Your task to perform on an android device: toggle show notifications on the lock screen Image 0: 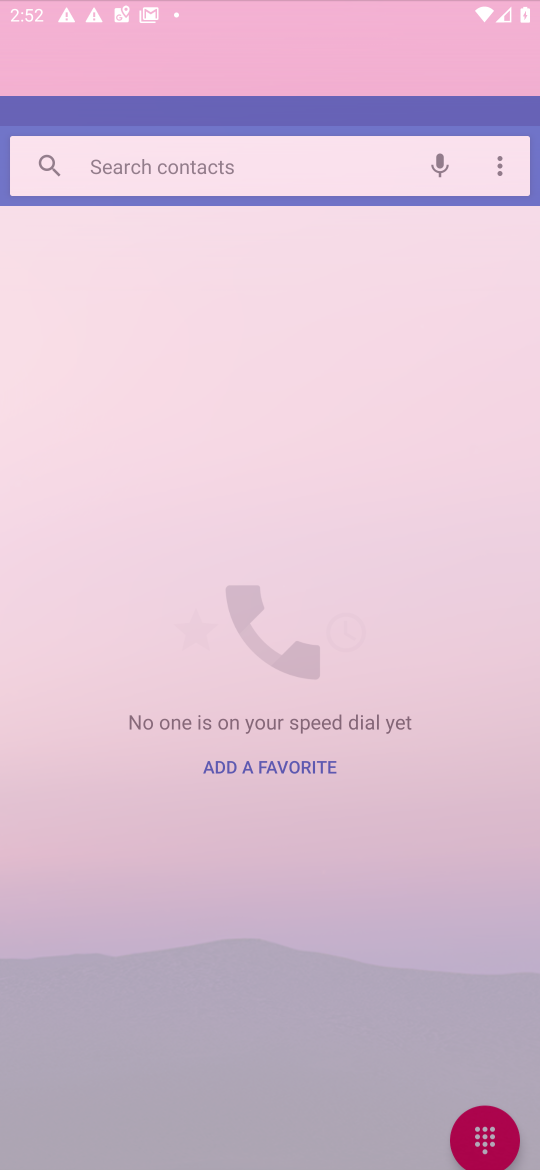
Step 0: press back button
Your task to perform on an android device: toggle show notifications on the lock screen Image 1: 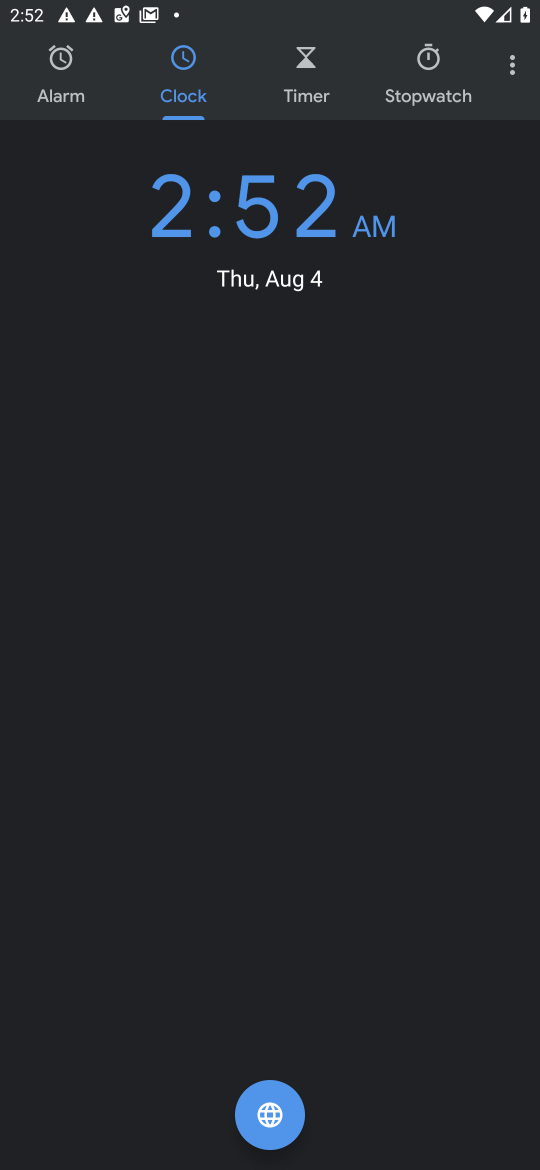
Step 1: press home button
Your task to perform on an android device: toggle show notifications on the lock screen Image 2: 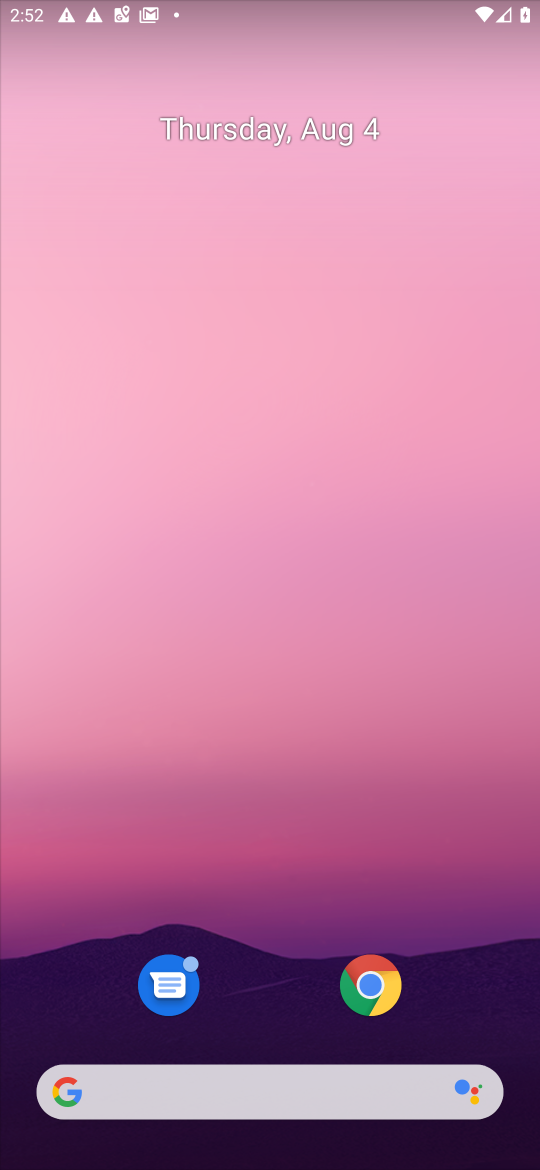
Step 2: drag from (313, 1088) to (180, 381)
Your task to perform on an android device: toggle show notifications on the lock screen Image 3: 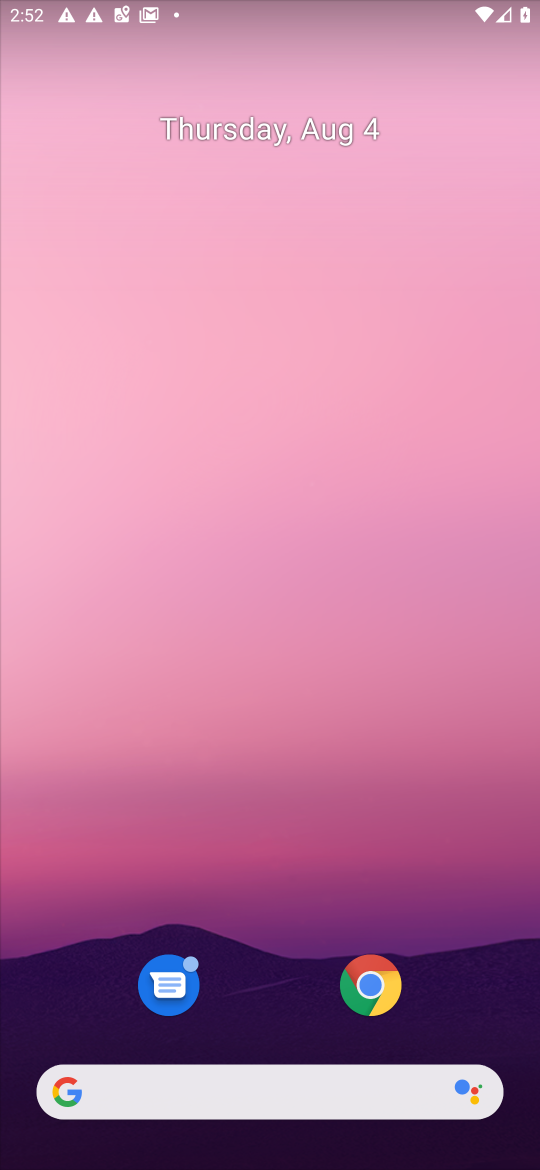
Step 3: drag from (254, 1049) to (208, 735)
Your task to perform on an android device: toggle show notifications on the lock screen Image 4: 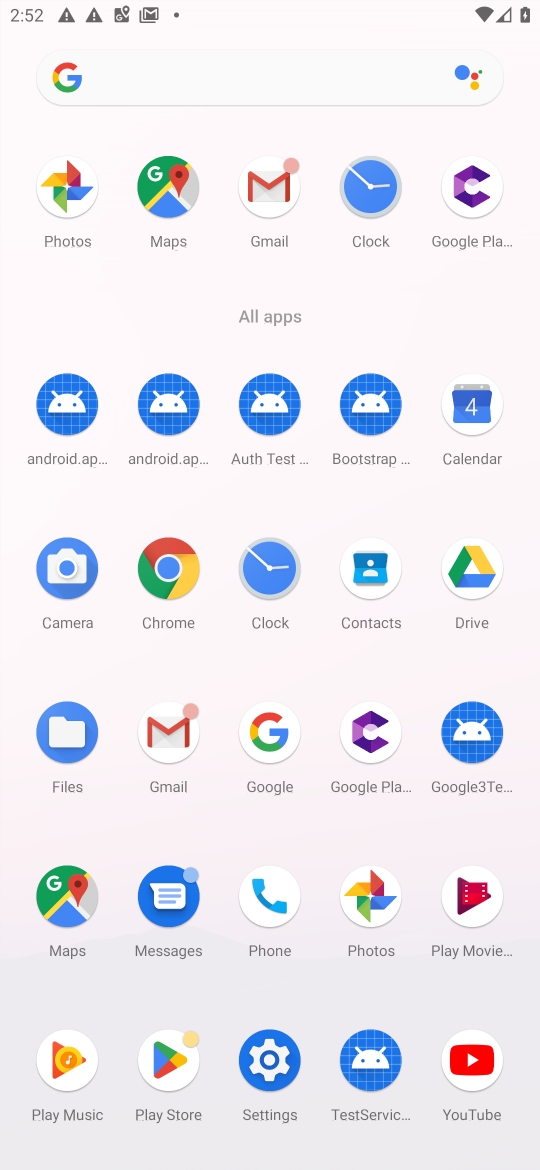
Step 4: click (268, 1069)
Your task to perform on an android device: toggle show notifications on the lock screen Image 5: 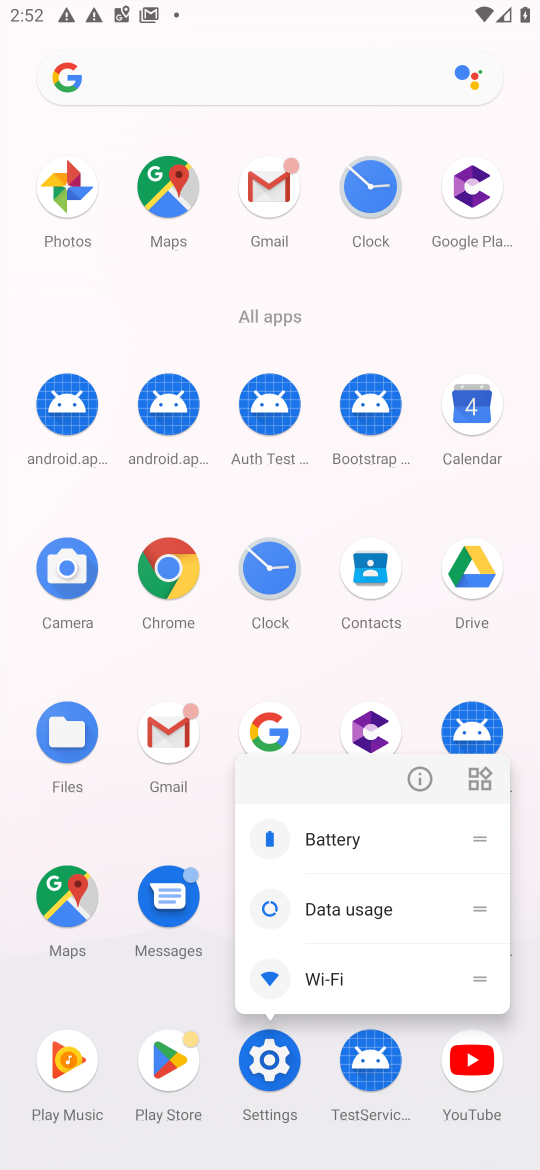
Step 5: click (265, 1065)
Your task to perform on an android device: toggle show notifications on the lock screen Image 6: 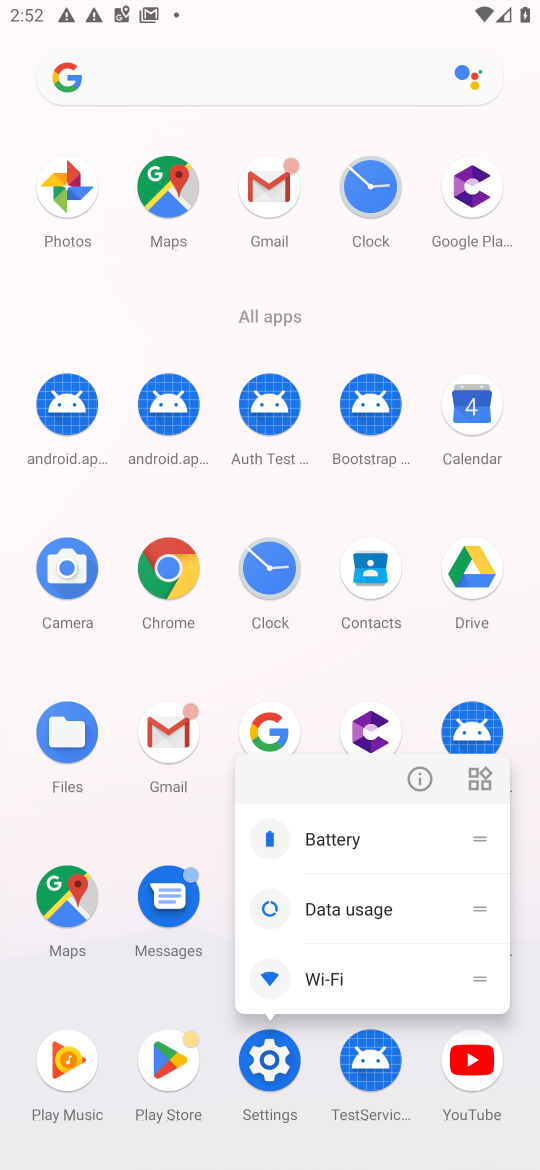
Step 6: click (271, 1072)
Your task to perform on an android device: toggle show notifications on the lock screen Image 7: 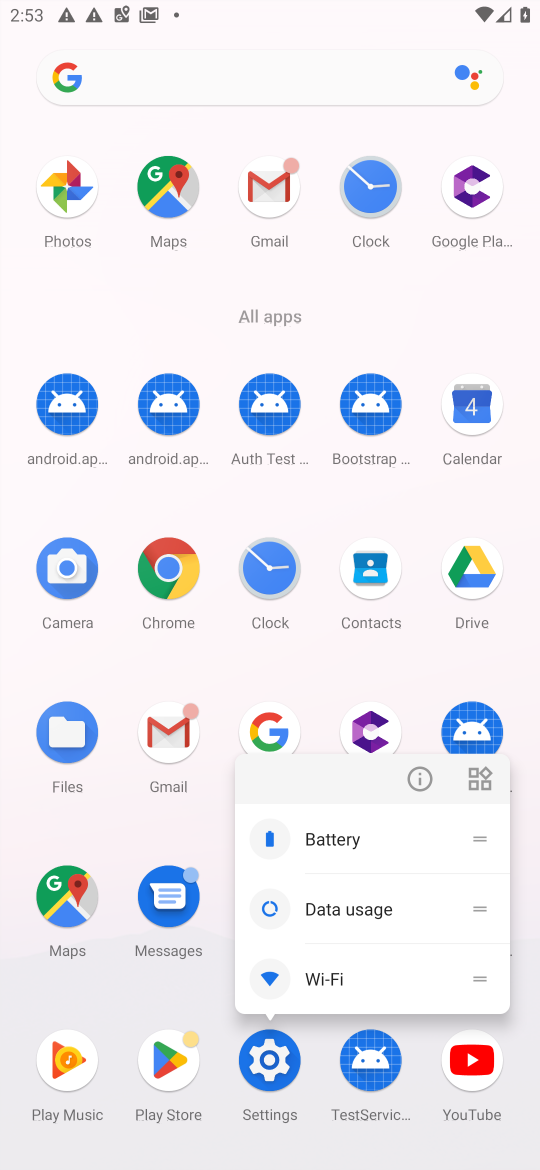
Step 7: click (268, 1056)
Your task to perform on an android device: toggle show notifications on the lock screen Image 8: 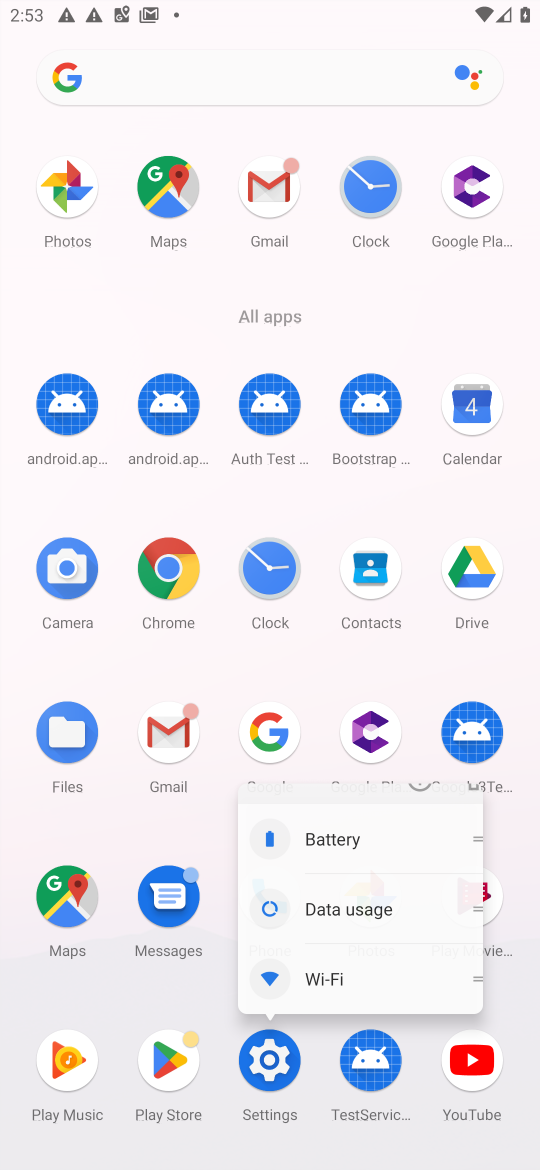
Step 8: click (269, 1051)
Your task to perform on an android device: toggle show notifications on the lock screen Image 9: 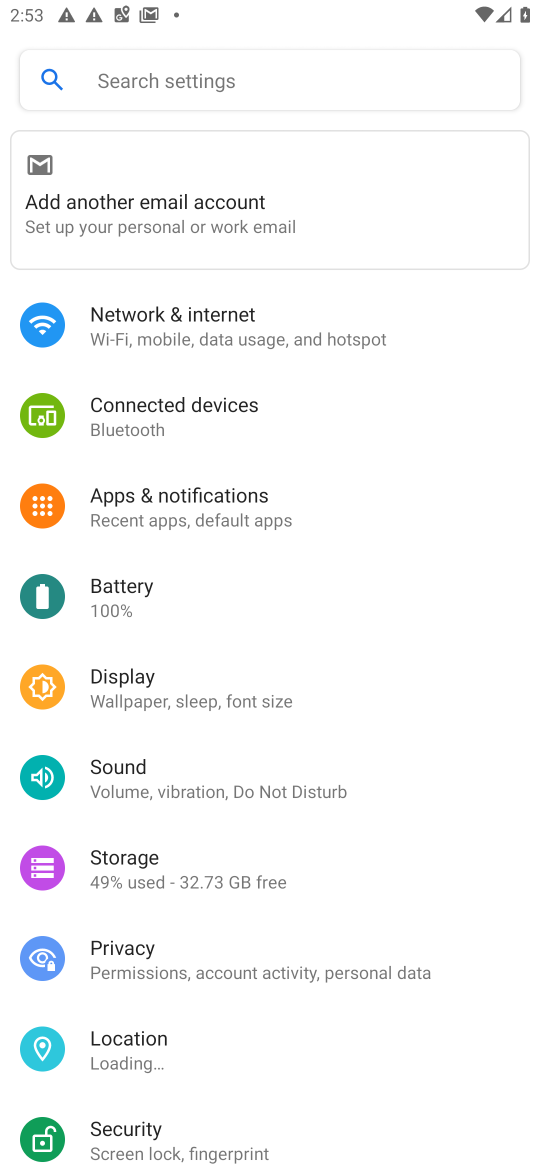
Step 9: click (166, 482)
Your task to perform on an android device: toggle show notifications on the lock screen Image 10: 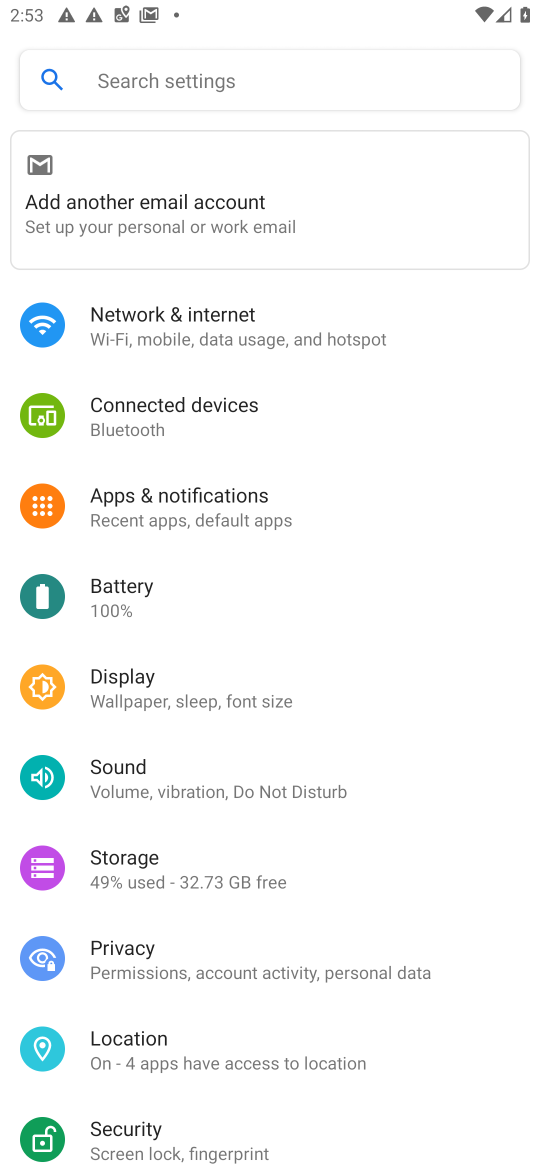
Step 10: click (184, 505)
Your task to perform on an android device: toggle show notifications on the lock screen Image 11: 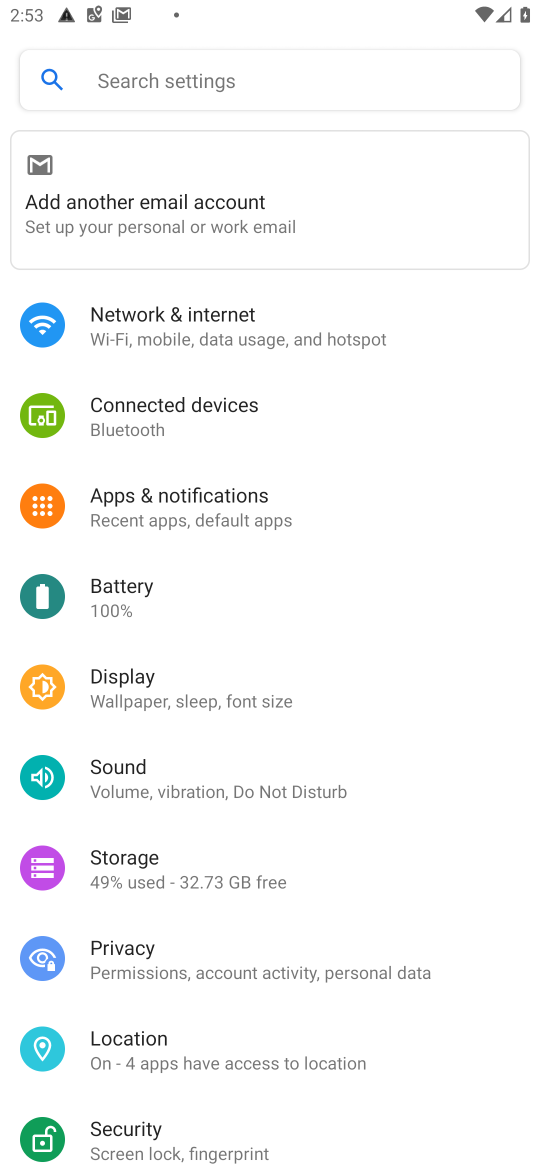
Step 11: click (184, 505)
Your task to perform on an android device: toggle show notifications on the lock screen Image 12: 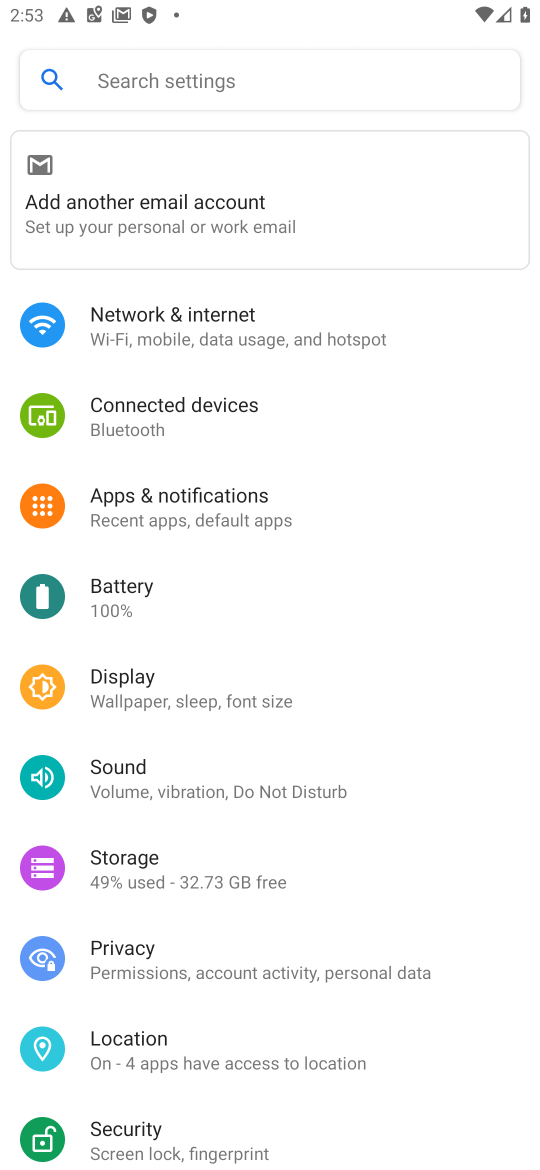
Step 12: click (184, 505)
Your task to perform on an android device: toggle show notifications on the lock screen Image 13: 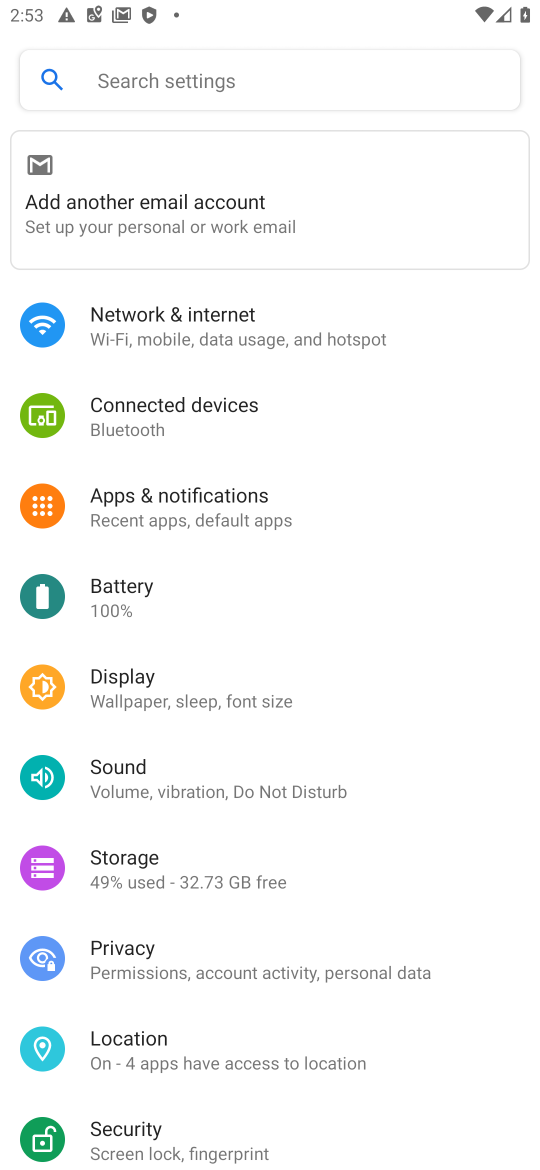
Step 13: click (186, 508)
Your task to perform on an android device: toggle show notifications on the lock screen Image 14: 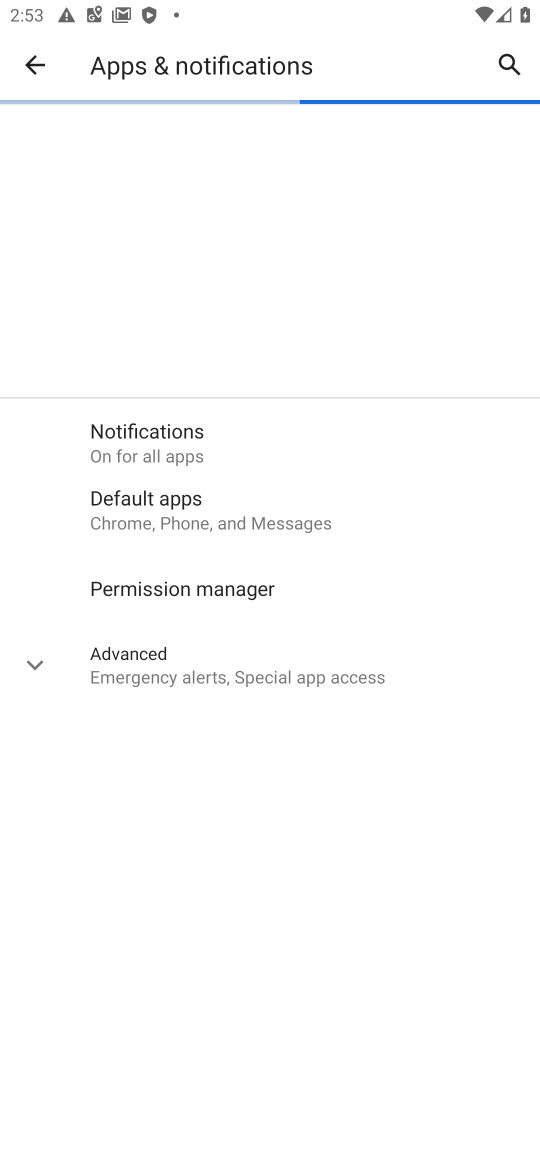
Step 14: click (200, 505)
Your task to perform on an android device: toggle show notifications on the lock screen Image 15: 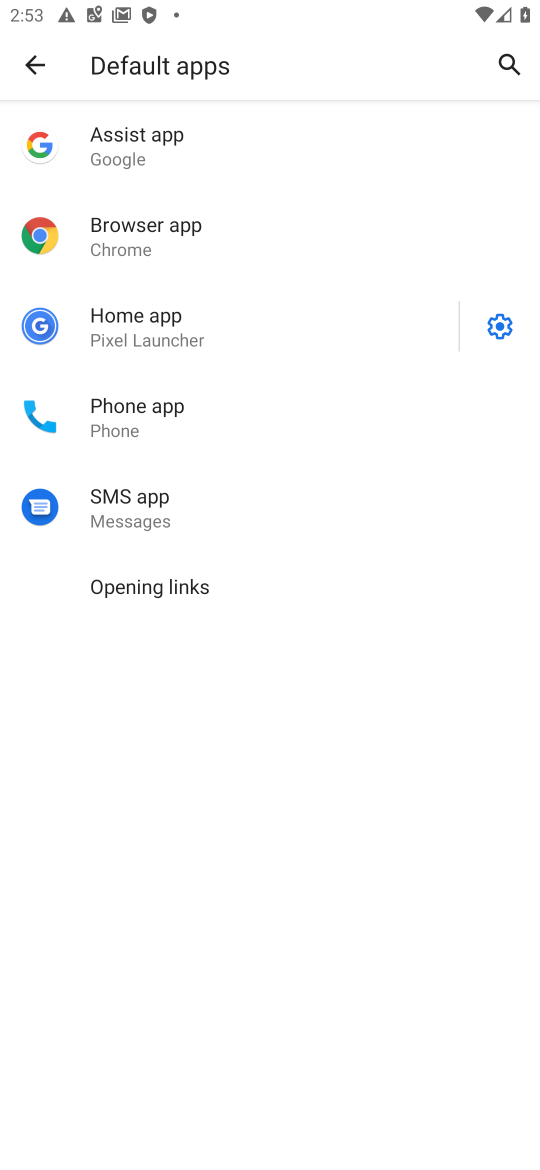
Step 15: click (24, 55)
Your task to perform on an android device: toggle show notifications on the lock screen Image 16: 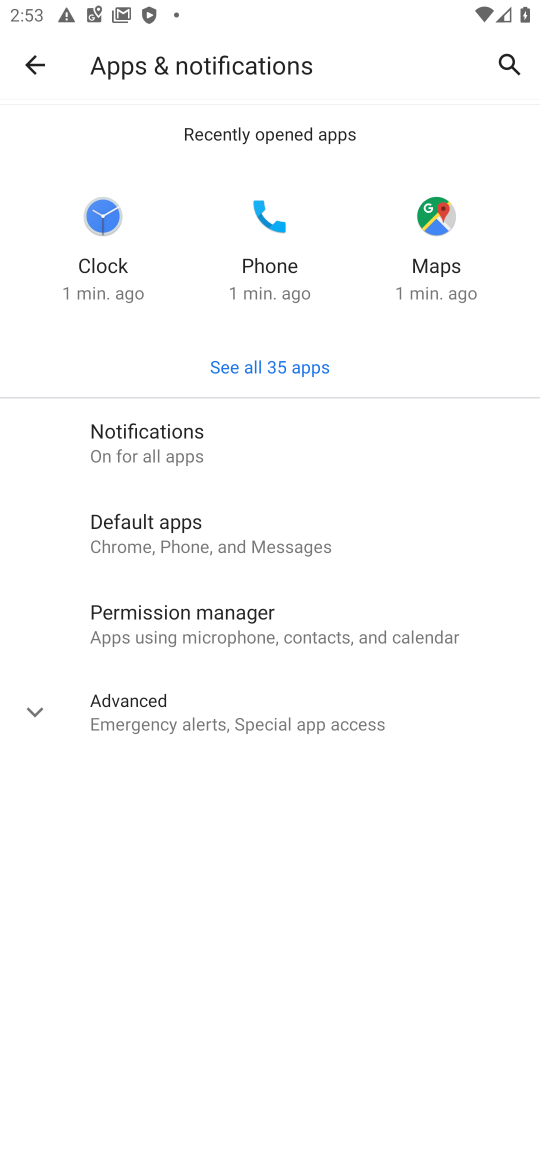
Step 16: click (24, 55)
Your task to perform on an android device: toggle show notifications on the lock screen Image 17: 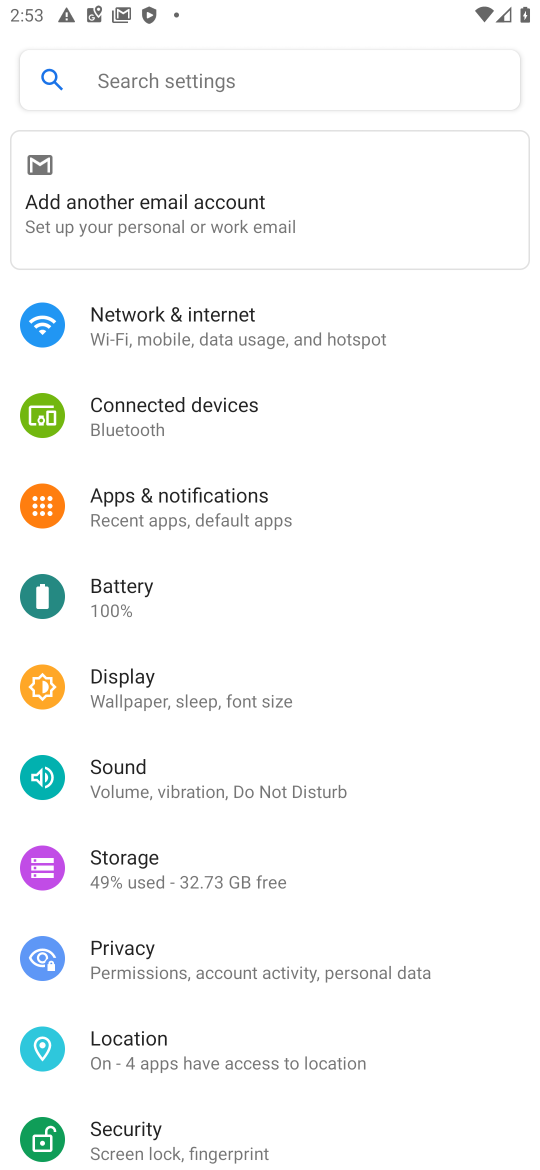
Step 17: click (163, 486)
Your task to perform on an android device: toggle show notifications on the lock screen Image 18: 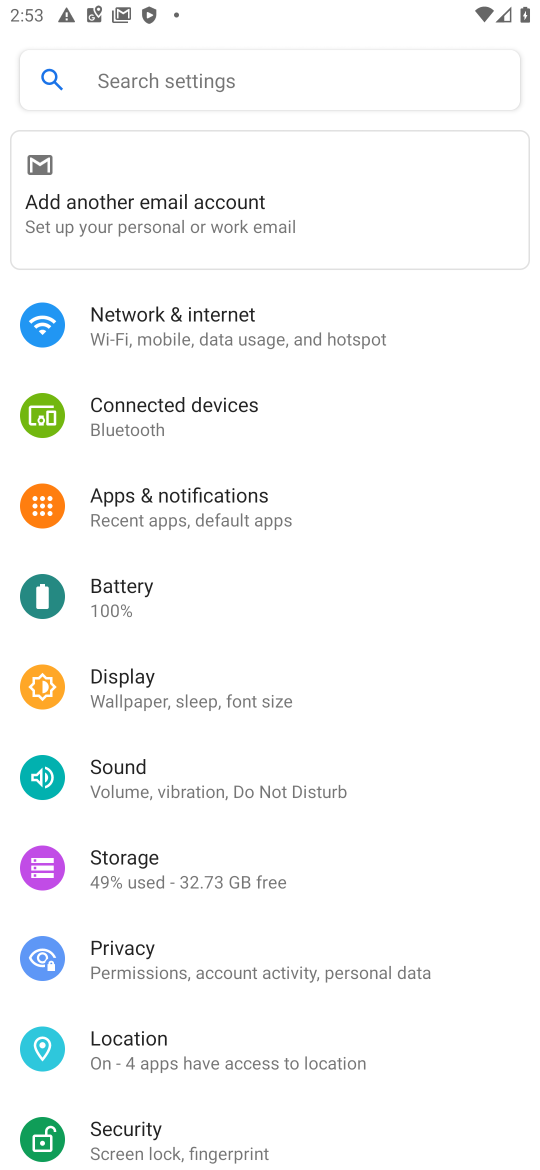
Step 18: click (152, 494)
Your task to perform on an android device: toggle show notifications on the lock screen Image 19: 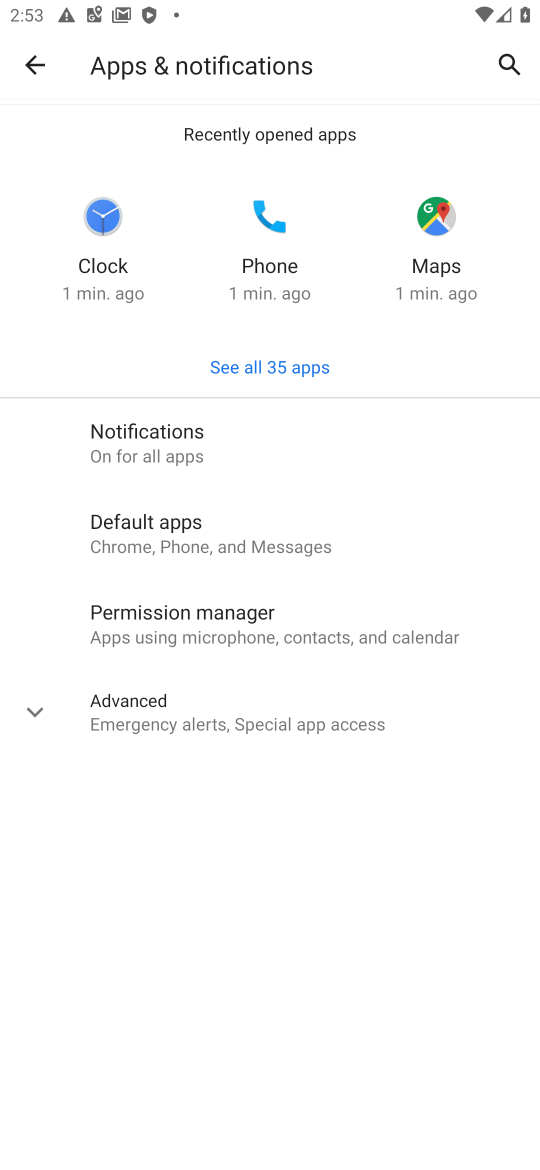
Step 19: click (130, 421)
Your task to perform on an android device: toggle show notifications on the lock screen Image 20: 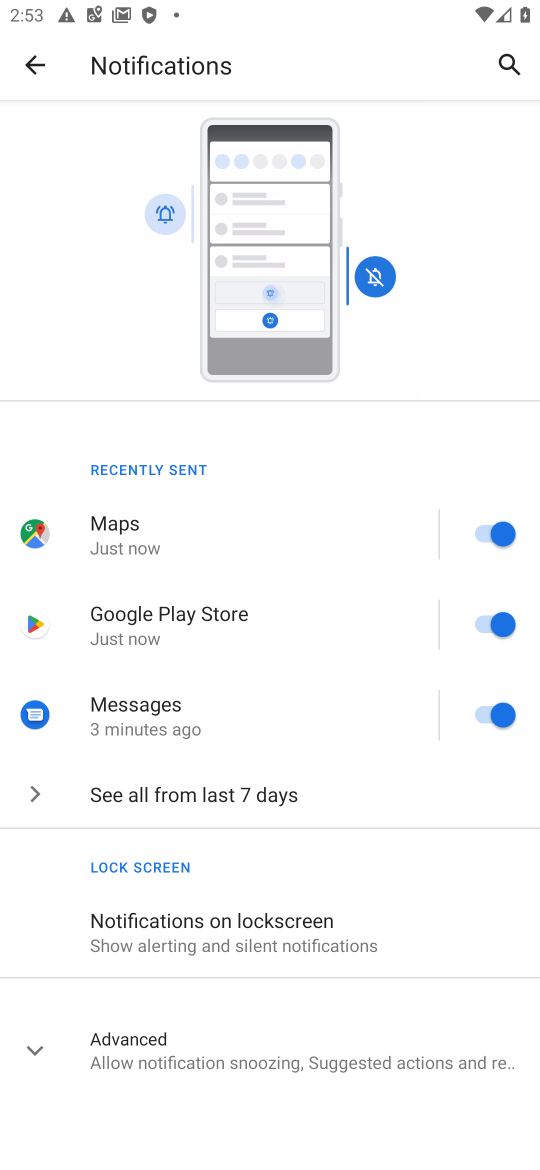
Step 20: click (282, 936)
Your task to perform on an android device: toggle show notifications on the lock screen Image 21: 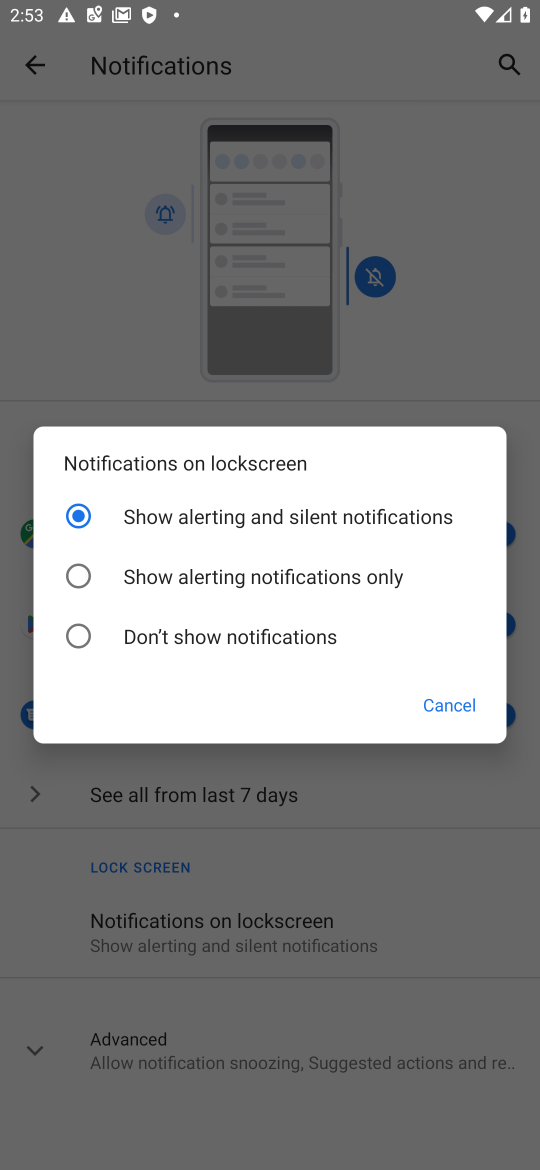
Step 21: click (83, 631)
Your task to perform on an android device: toggle show notifications on the lock screen Image 22: 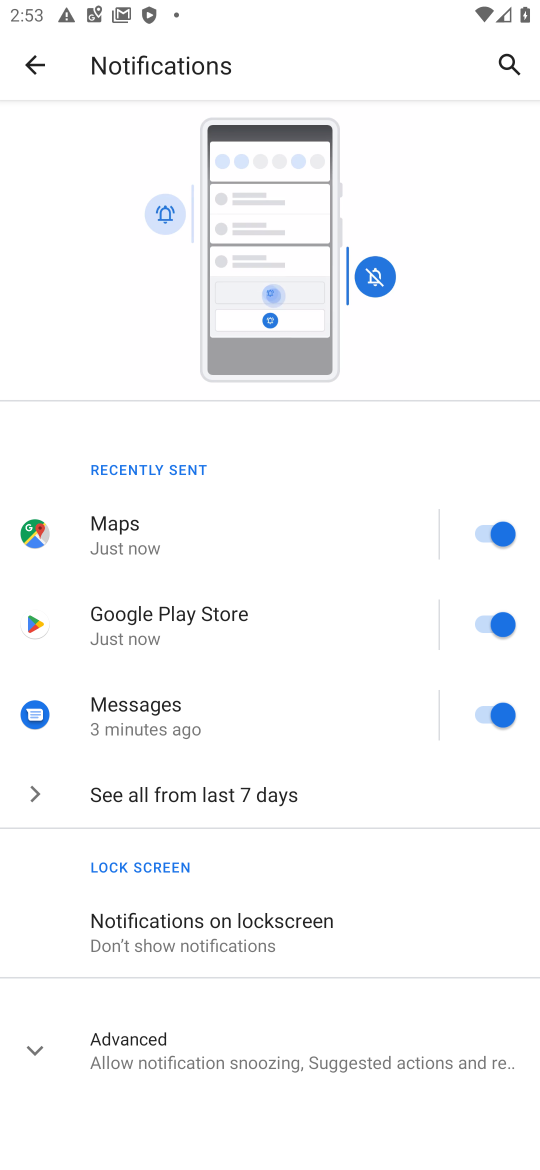
Step 22: task complete